Your task to perform on an android device: Search for Mexican restaurants on Maps Image 0: 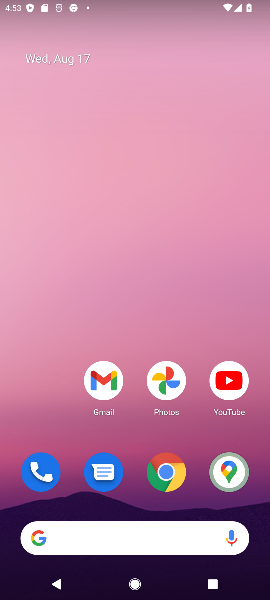
Step 0: click (230, 468)
Your task to perform on an android device: Search for Mexican restaurants on Maps Image 1: 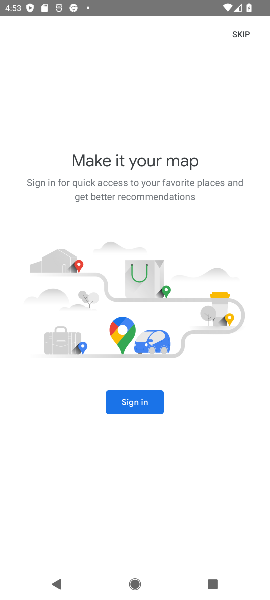
Step 1: task complete